Your task to perform on an android device: Search for seafood restaurants on Google Maps Image 0: 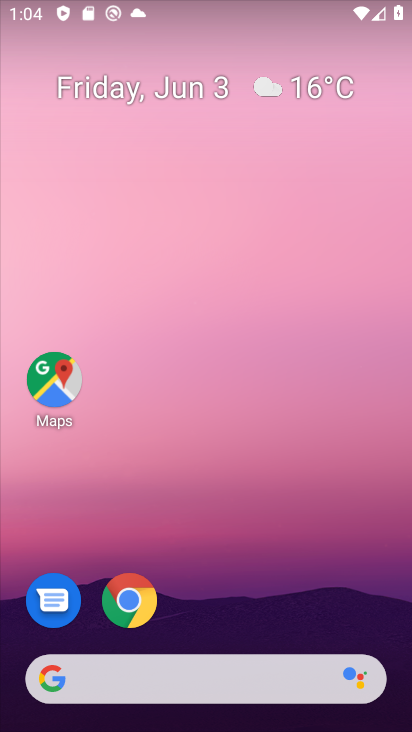
Step 0: drag from (192, 618) to (206, 333)
Your task to perform on an android device: Search for seafood restaurants on Google Maps Image 1: 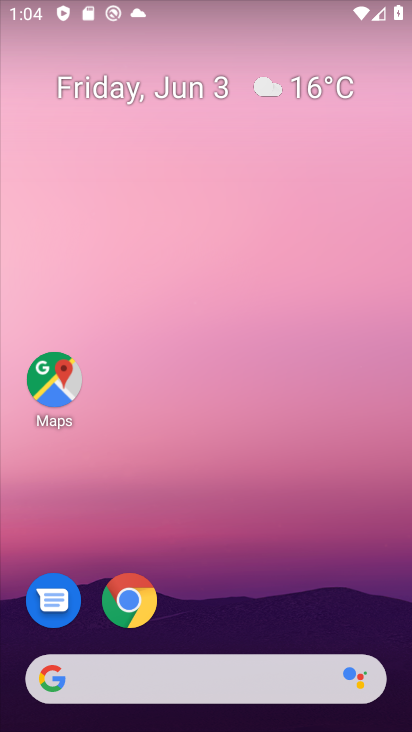
Step 1: drag from (201, 480) to (202, 347)
Your task to perform on an android device: Search for seafood restaurants on Google Maps Image 2: 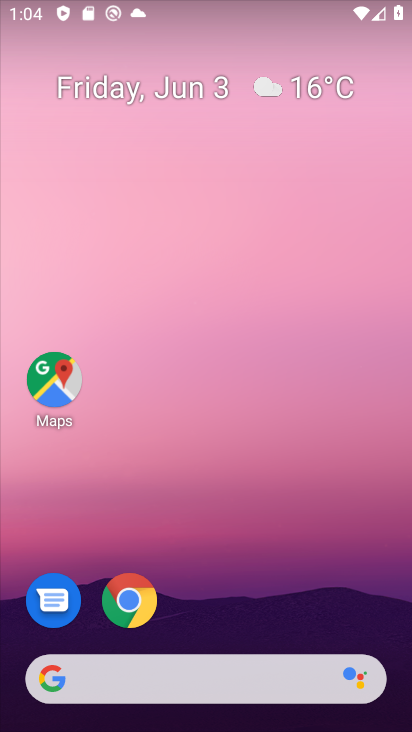
Step 2: click (191, 523)
Your task to perform on an android device: Search for seafood restaurants on Google Maps Image 3: 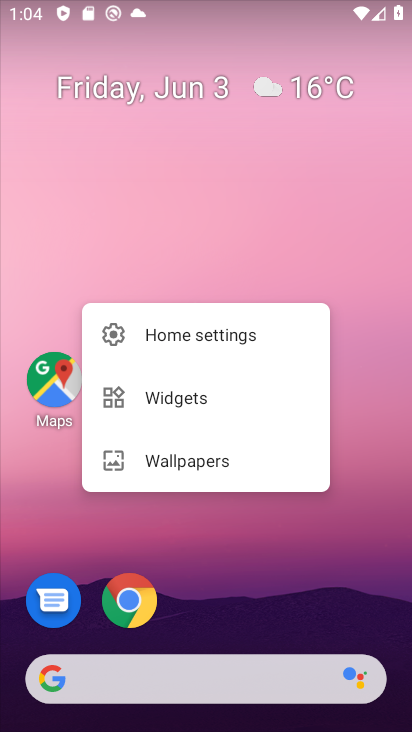
Step 3: click (192, 555)
Your task to perform on an android device: Search for seafood restaurants on Google Maps Image 4: 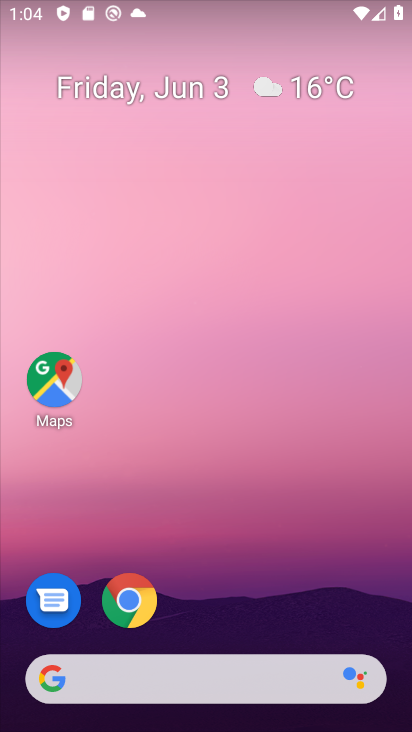
Step 4: click (55, 373)
Your task to perform on an android device: Search for seafood restaurants on Google Maps Image 5: 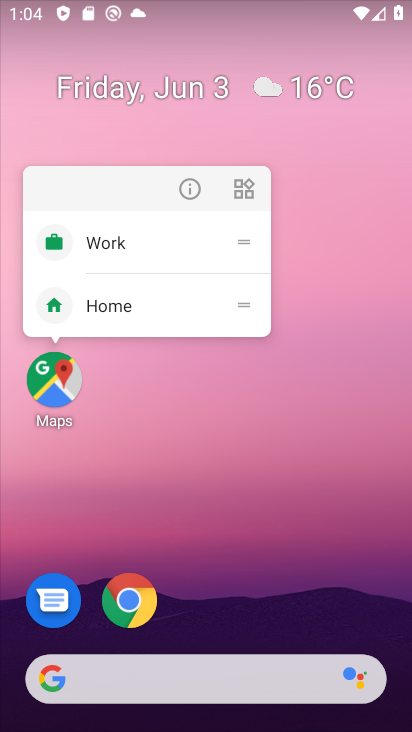
Step 5: click (60, 371)
Your task to perform on an android device: Search for seafood restaurants on Google Maps Image 6: 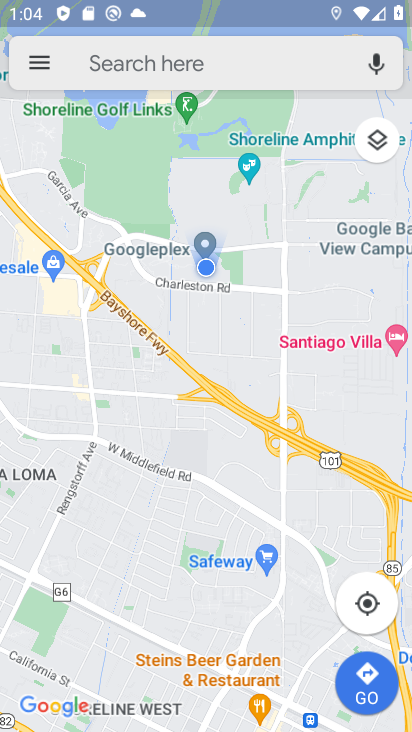
Step 6: click (179, 43)
Your task to perform on an android device: Search for seafood restaurants on Google Maps Image 7: 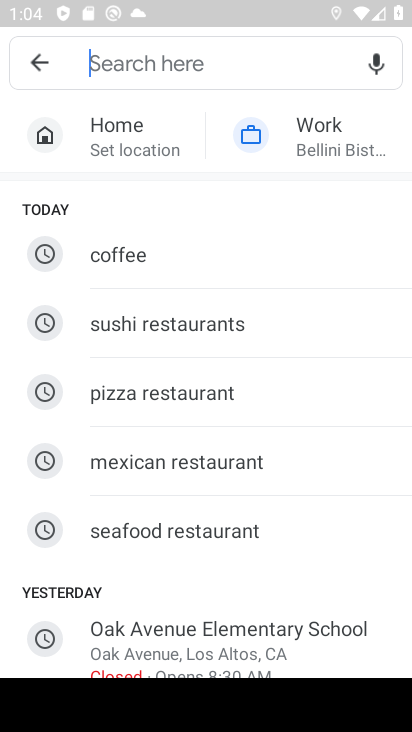
Step 7: type "seafood restaurants"
Your task to perform on an android device: Search for seafood restaurants on Google Maps Image 8: 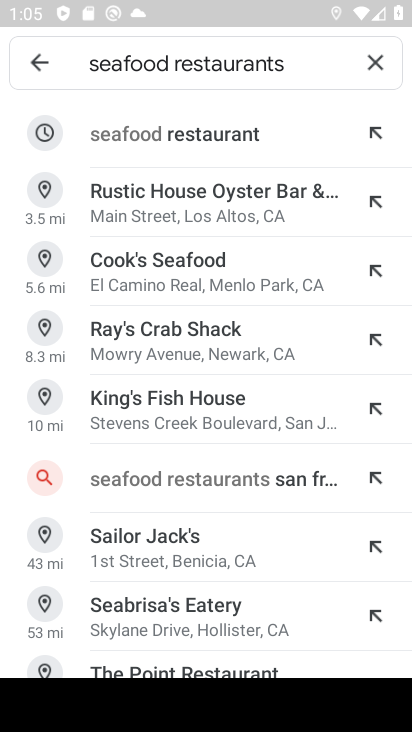
Step 8: click (152, 134)
Your task to perform on an android device: Search for seafood restaurants on Google Maps Image 9: 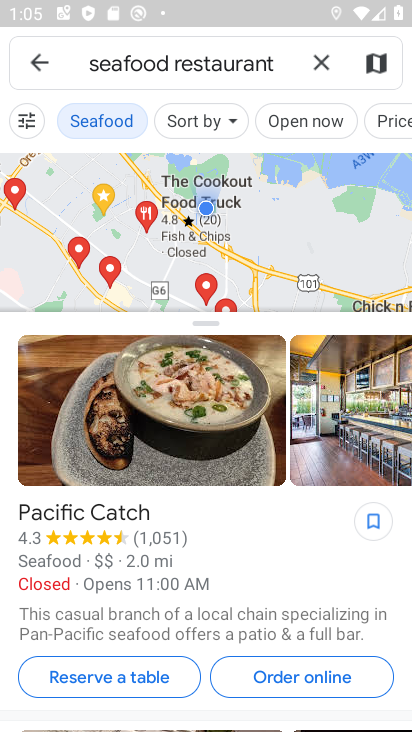
Step 9: task complete